Your task to perform on an android device: delete browsing data in the chrome app Image 0: 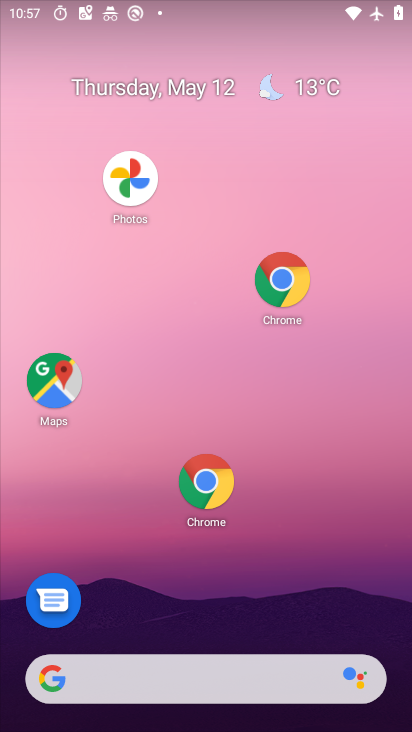
Step 0: drag from (247, 526) to (48, 121)
Your task to perform on an android device: delete browsing data in the chrome app Image 1: 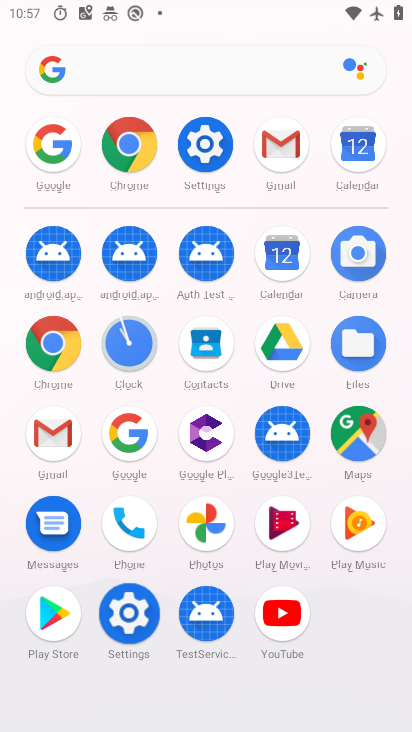
Step 1: click (120, 121)
Your task to perform on an android device: delete browsing data in the chrome app Image 2: 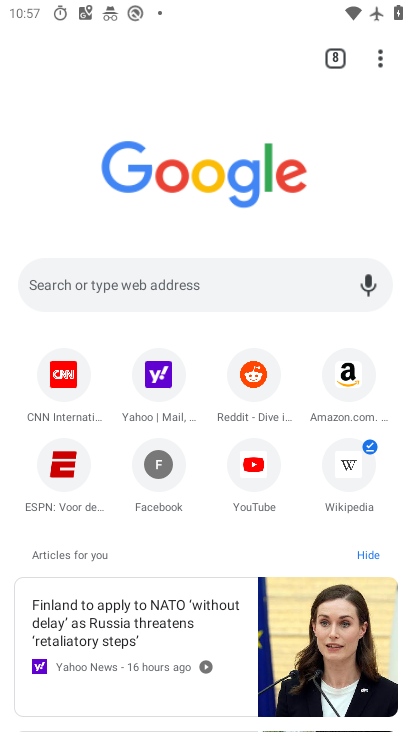
Step 2: click (378, 60)
Your task to perform on an android device: delete browsing data in the chrome app Image 3: 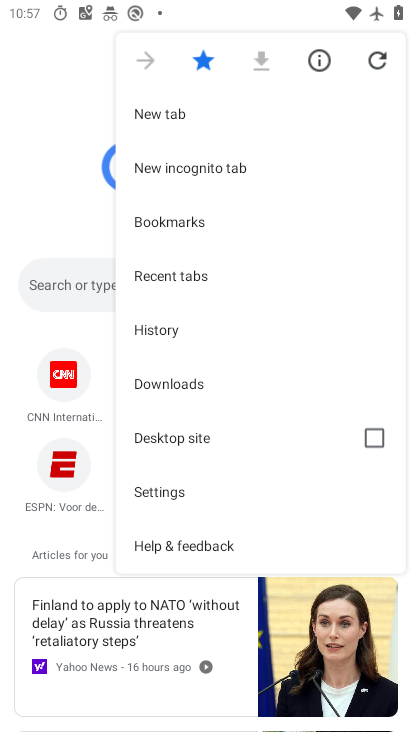
Step 3: click (145, 322)
Your task to perform on an android device: delete browsing data in the chrome app Image 4: 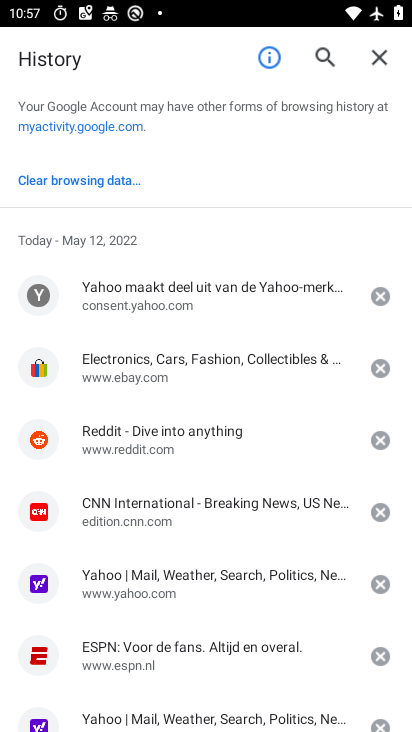
Step 4: click (380, 292)
Your task to perform on an android device: delete browsing data in the chrome app Image 5: 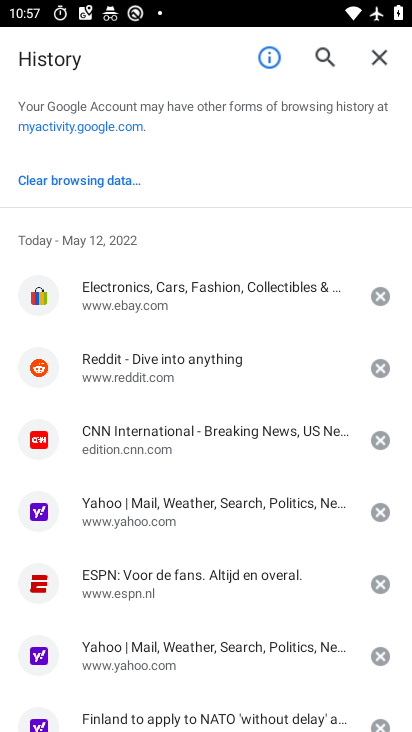
Step 5: click (376, 287)
Your task to perform on an android device: delete browsing data in the chrome app Image 6: 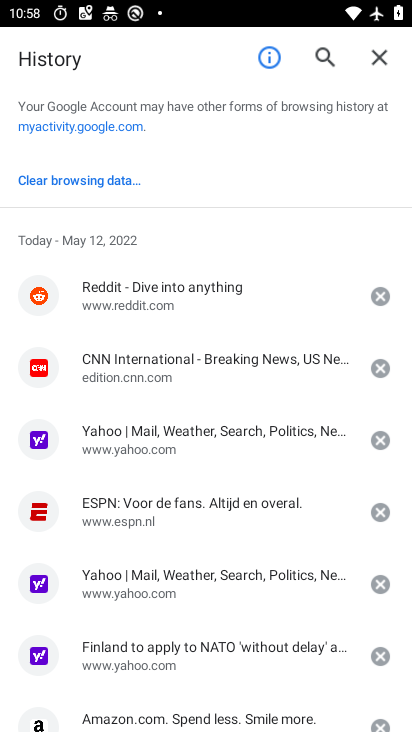
Step 6: press back button
Your task to perform on an android device: delete browsing data in the chrome app Image 7: 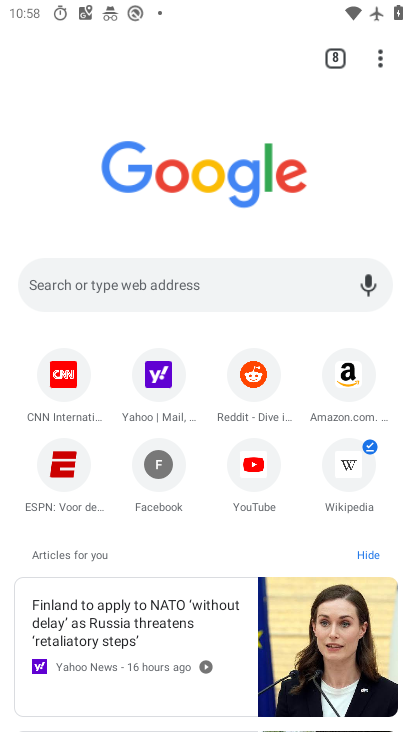
Step 7: drag from (375, 57) to (158, 334)
Your task to perform on an android device: delete browsing data in the chrome app Image 8: 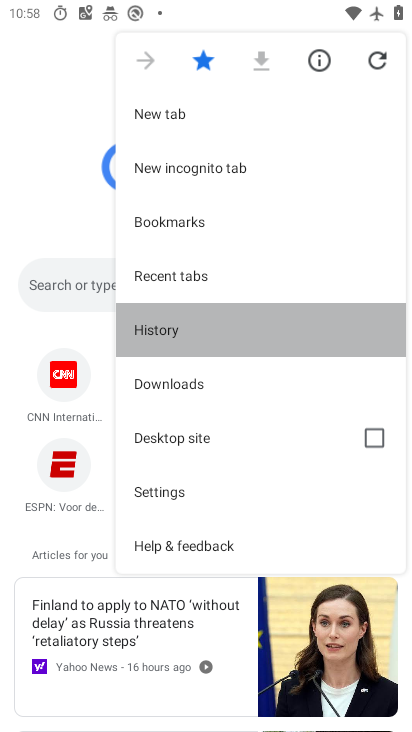
Step 8: click (159, 334)
Your task to perform on an android device: delete browsing data in the chrome app Image 9: 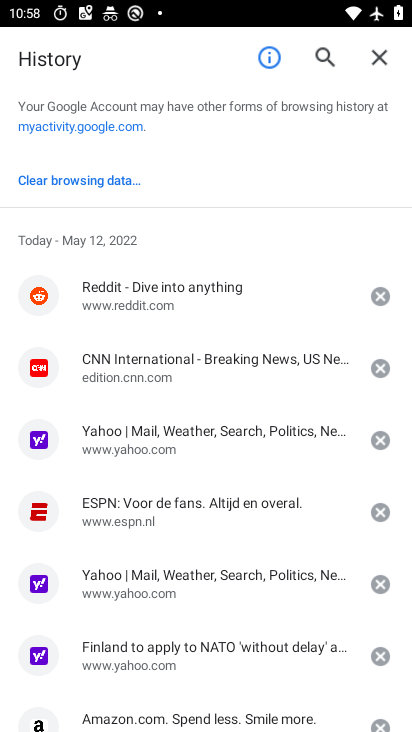
Step 9: click (378, 286)
Your task to perform on an android device: delete browsing data in the chrome app Image 10: 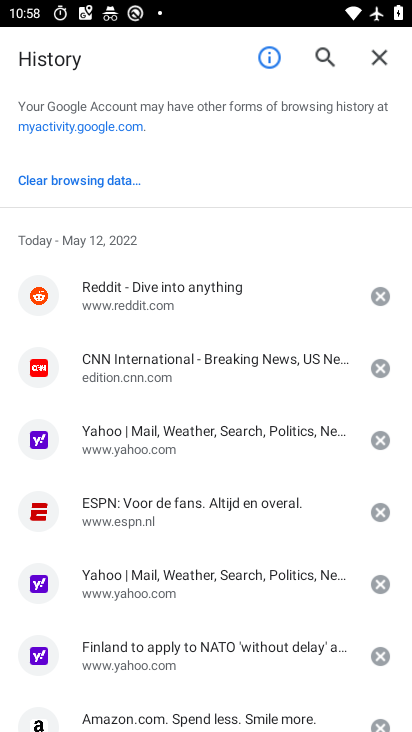
Step 10: click (382, 372)
Your task to perform on an android device: delete browsing data in the chrome app Image 11: 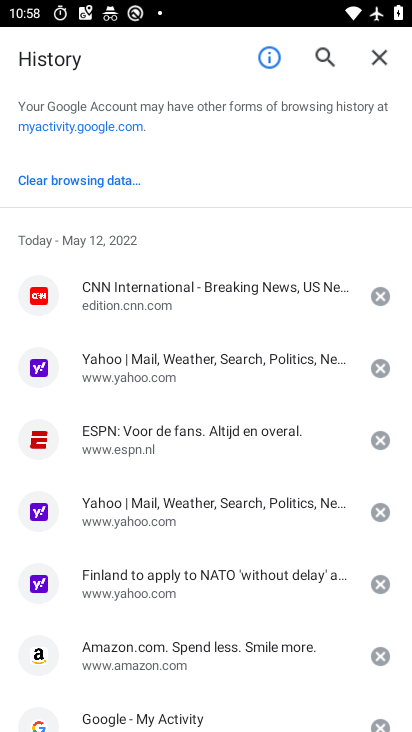
Step 11: task complete